Your task to perform on an android device: toggle notifications settings in the gmail app Image 0: 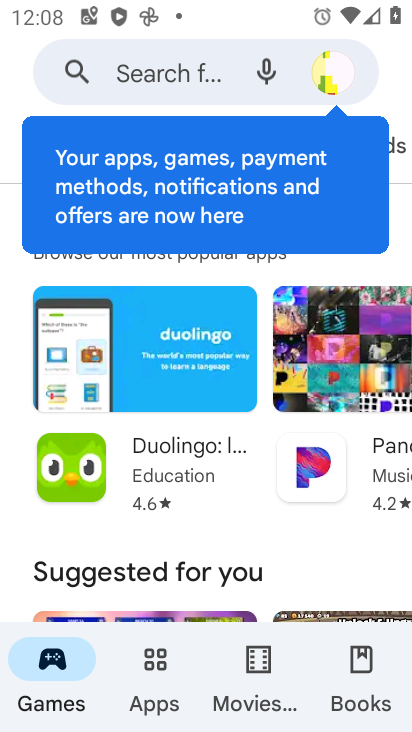
Step 0: press home button
Your task to perform on an android device: toggle notifications settings in the gmail app Image 1: 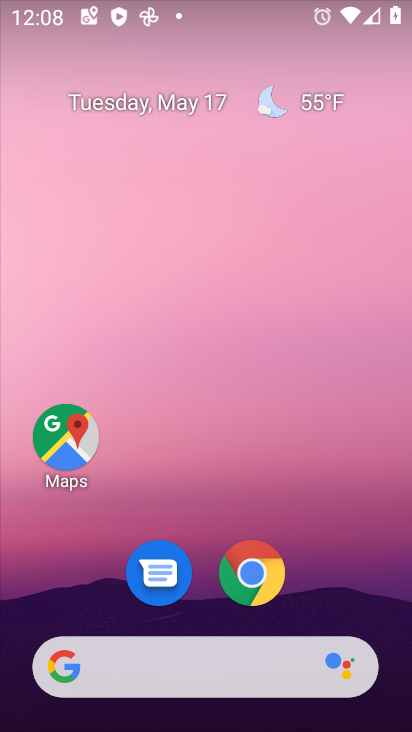
Step 1: drag from (299, 542) to (241, 32)
Your task to perform on an android device: toggle notifications settings in the gmail app Image 2: 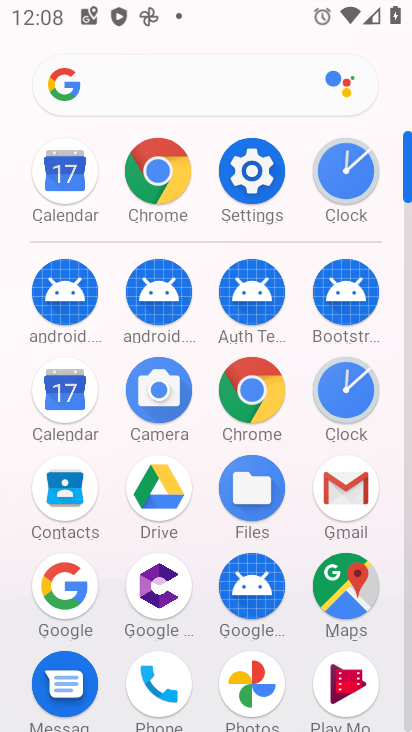
Step 2: click (349, 489)
Your task to perform on an android device: toggle notifications settings in the gmail app Image 3: 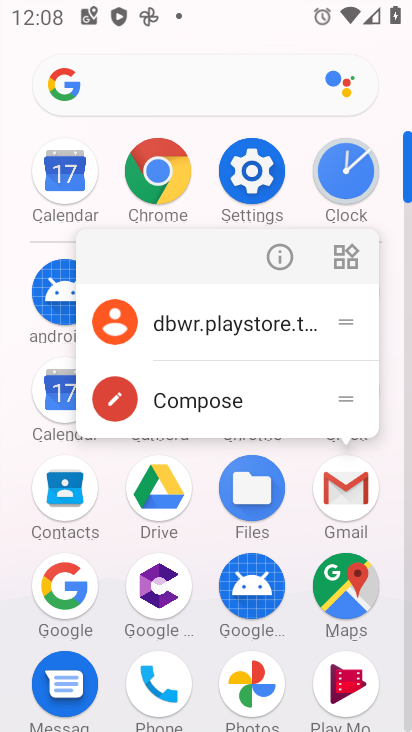
Step 3: click (277, 269)
Your task to perform on an android device: toggle notifications settings in the gmail app Image 4: 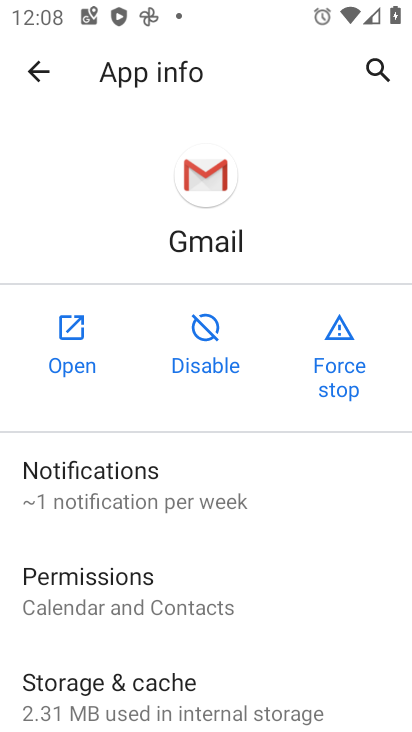
Step 4: click (141, 505)
Your task to perform on an android device: toggle notifications settings in the gmail app Image 5: 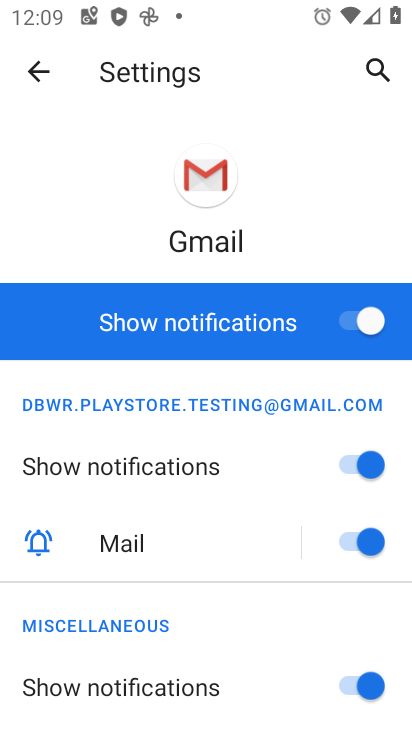
Step 5: click (371, 326)
Your task to perform on an android device: toggle notifications settings in the gmail app Image 6: 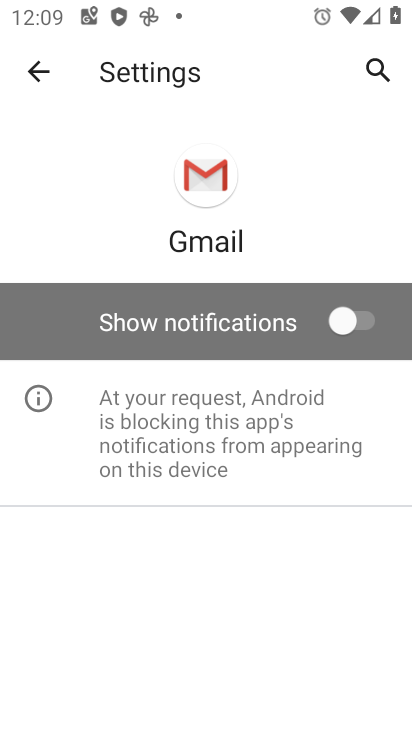
Step 6: task complete